Your task to perform on an android device: See recent photos Image 0: 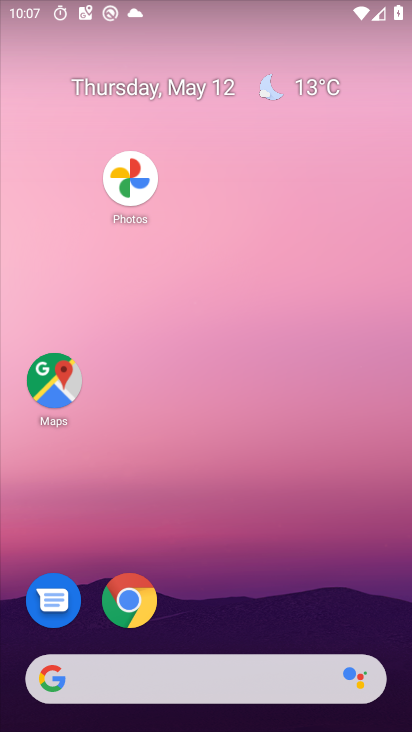
Step 0: drag from (338, 636) to (114, 22)
Your task to perform on an android device: See recent photos Image 1: 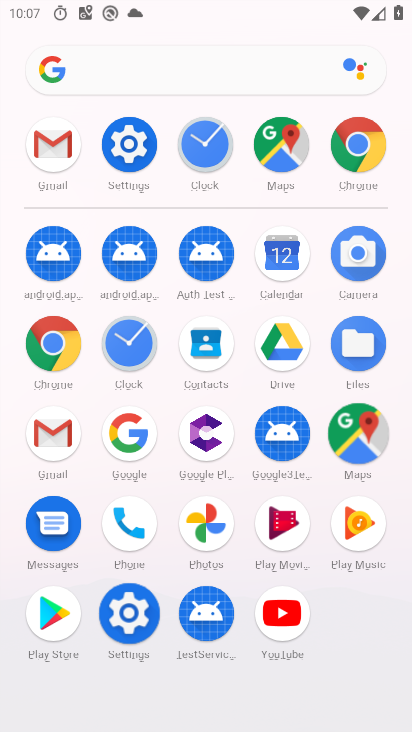
Step 1: click (199, 517)
Your task to perform on an android device: See recent photos Image 2: 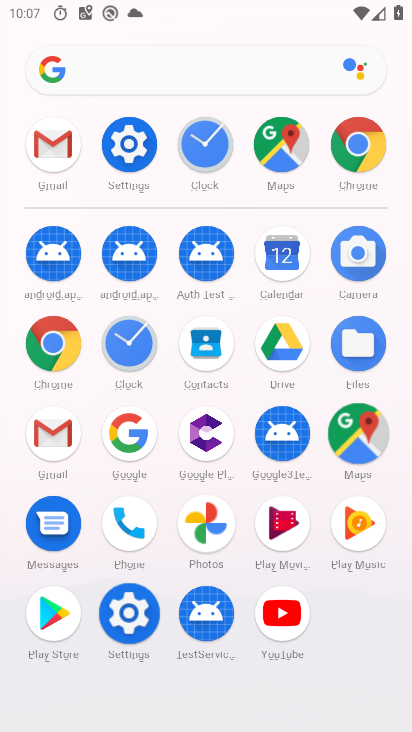
Step 2: click (201, 519)
Your task to perform on an android device: See recent photos Image 3: 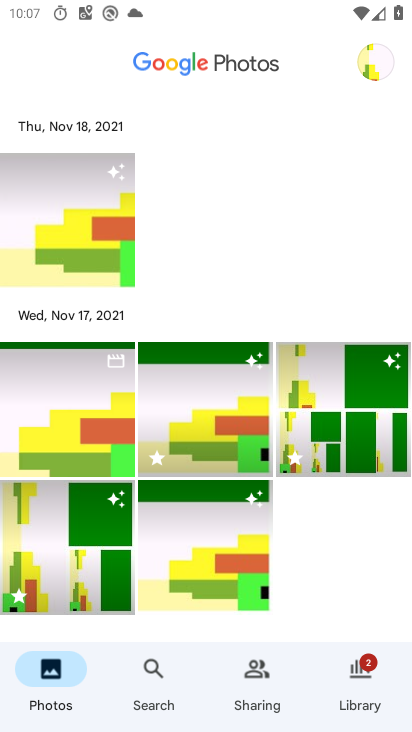
Step 3: task complete